Your task to perform on an android device: turn off notifications in google photos Image 0: 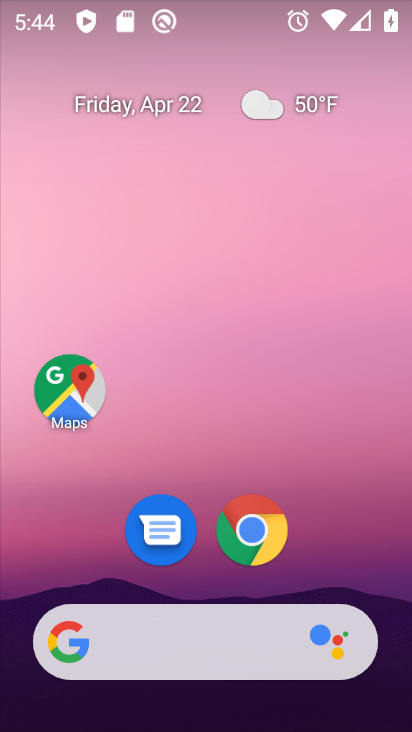
Step 0: drag from (334, 535) to (346, 211)
Your task to perform on an android device: turn off notifications in google photos Image 1: 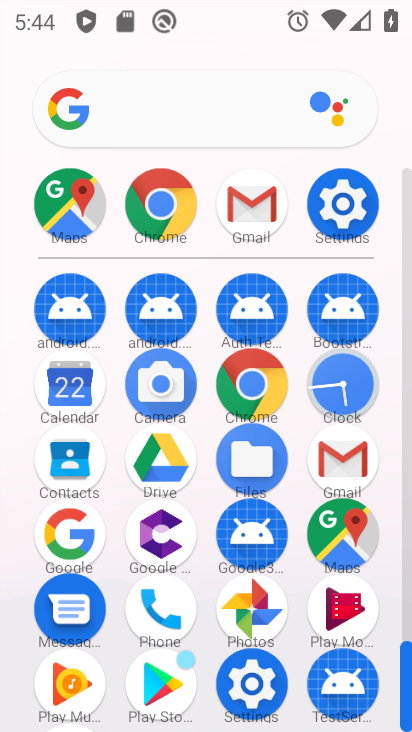
Step 1: click (264, 596)
Your task to perform on an android device: turn off notifications in google photos Image 2: 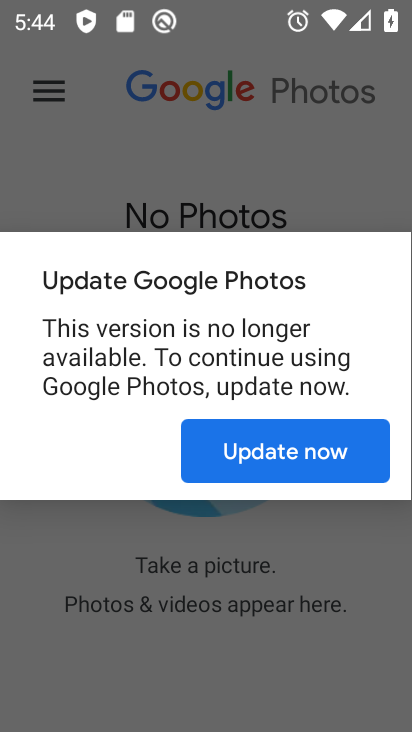
Step 2: click (279, 455)
Your task to perform on an android device: turn off notifications in google photos Image 3: 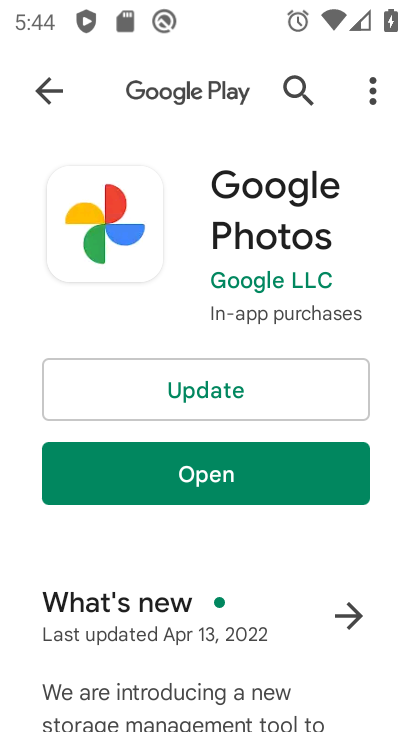
Step 3: click (282, 384)
Your task to perform on an android device: turn off notifications in google photos Image 4: 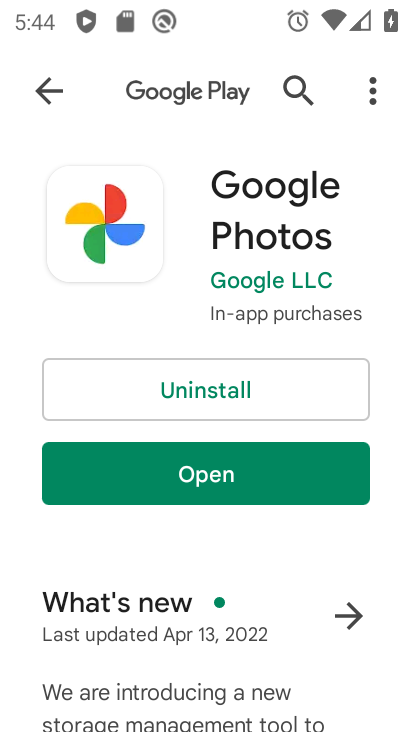
Step 4: click (218, 471)
Your task to perform on an android device: turn off notifications in google photos Image 5: 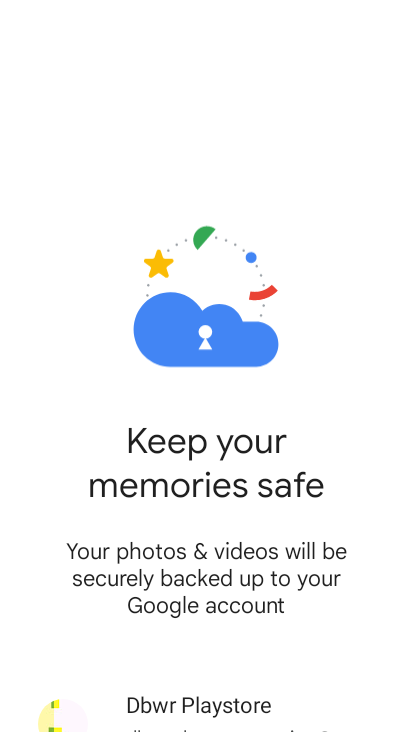
Step 5: press back button
Your task to perform on an android device: turn off notifications in google photos Image 6: 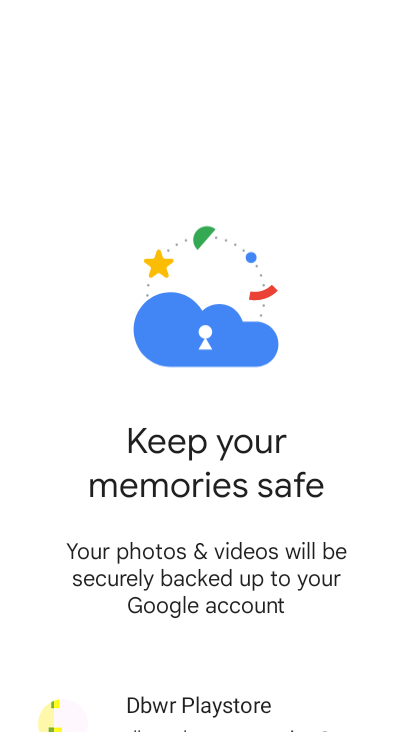
Step 6: press back button
Your task to perform on an android device: turn off notifications in google photos Image 7: 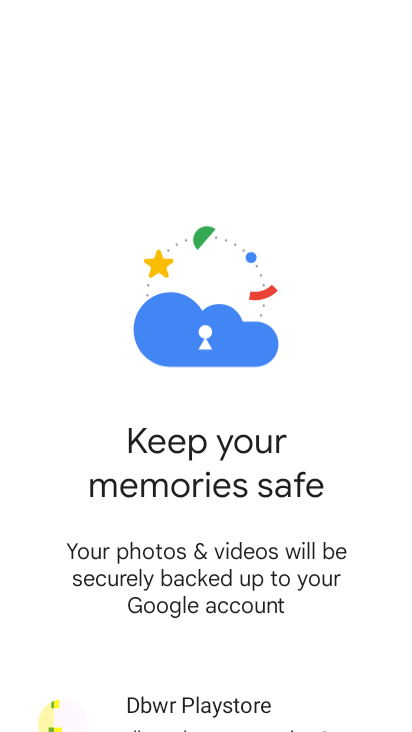
Step 7: press home button
Your task to perform on an android device: turn off notifications in google photos Image 8: 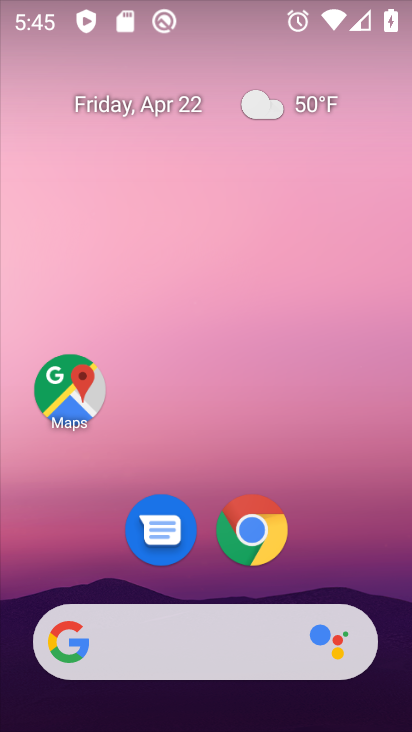
Step 8: drag from (356, 523) to (343, 138)
Your task to perform on an android device: turn off notifications in google photos Image 9: 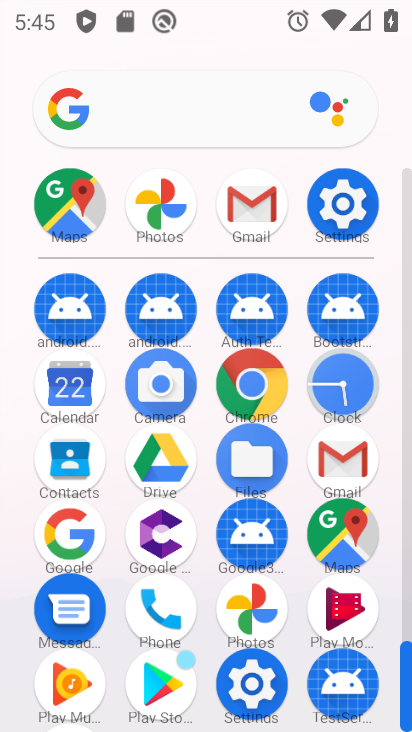
Step 9: click (235, 615)
Your task to perform on an android device: turn off notifications in google photos Image 10: 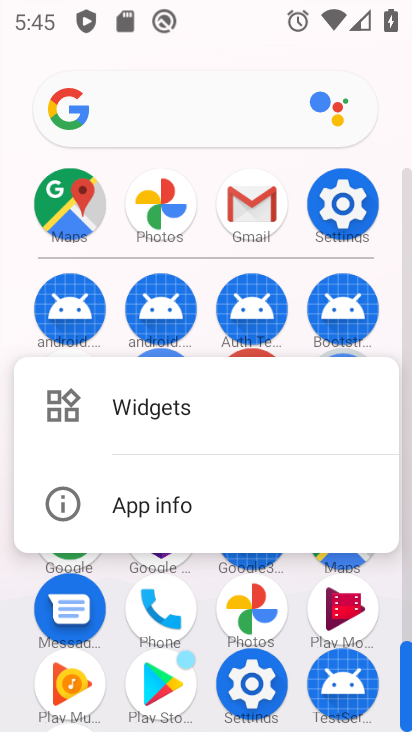
Step 10: click (160, 502)
Your task to perform on an android device: turn off notifications in google photos Image 11: 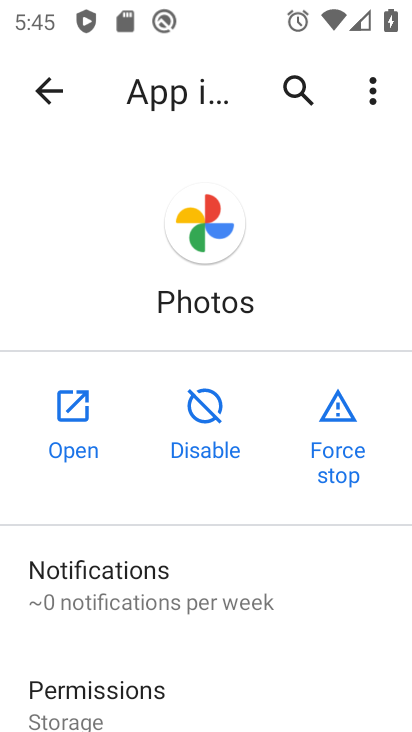
Step 11: click (117, 584)
Your task to perform on an android device: turn off notifications in google photos Image 12: 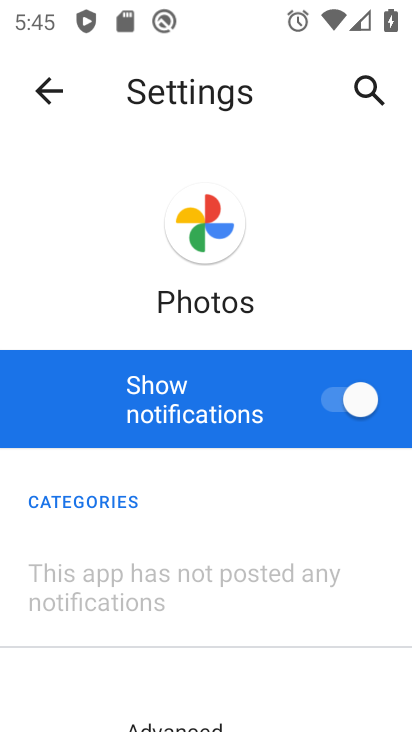
Step 12: click (329, 399)
Your task to perform on an android device: turn off notifications in google photos Image 13: 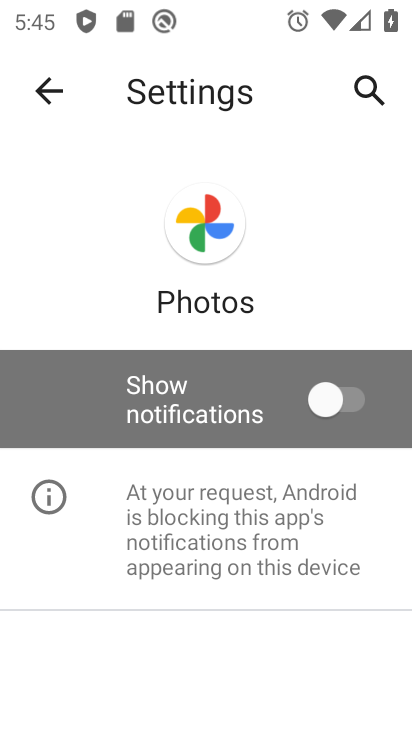
Step 13: task complete